Your task to perform on an android device: turn notification dots off Image 0: 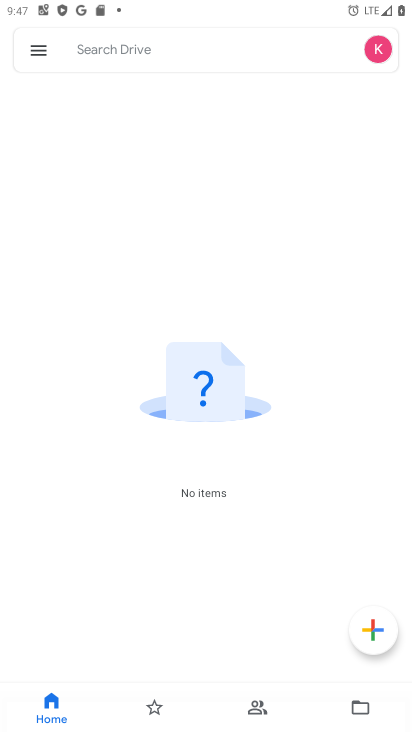
Step 0: press home button
Your task to perform on an android device: turn notification dots off Image 1: 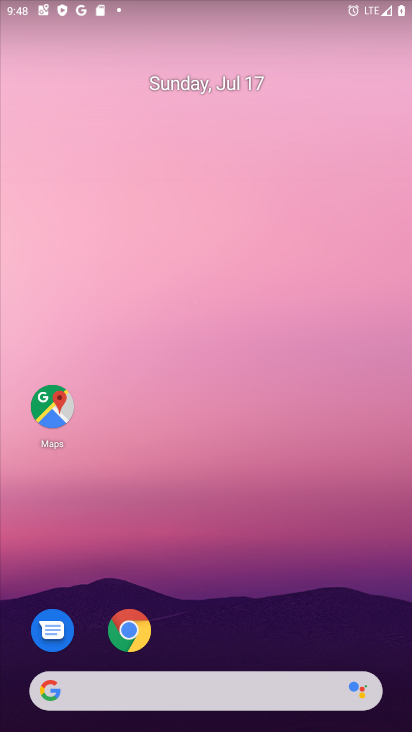
Step 1: drag from (212, 651) to (204, 115)
Your task to perform on an android device: turn notification dots off Image 2: 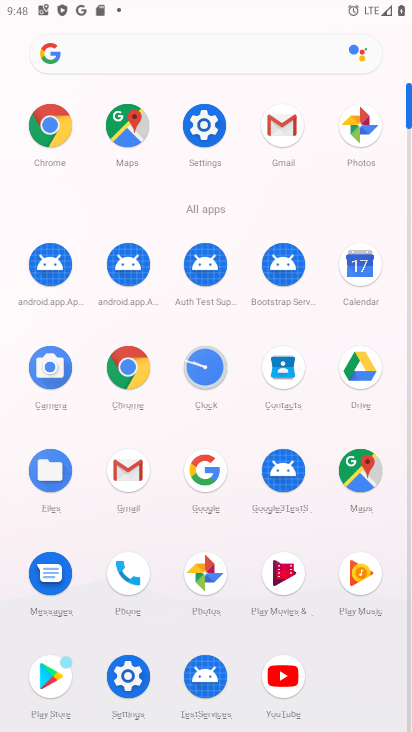
Step 2: click (198, 115)
Your task to perform on an android device: turn notification dots off Image 3: 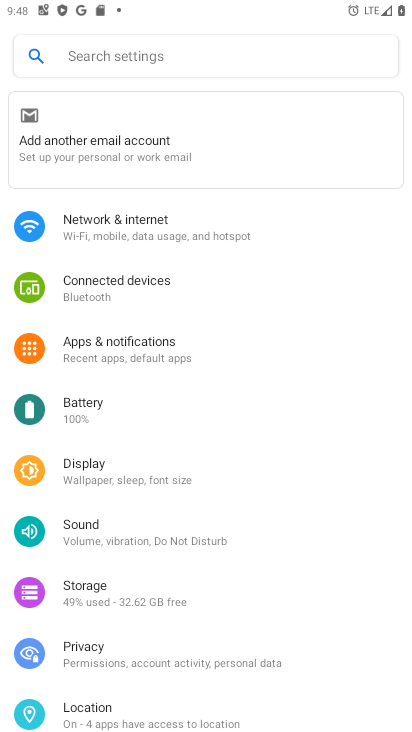
Step 3: click (149, 348)
Your task to perform on an android device: turn notification dots off Image 4: 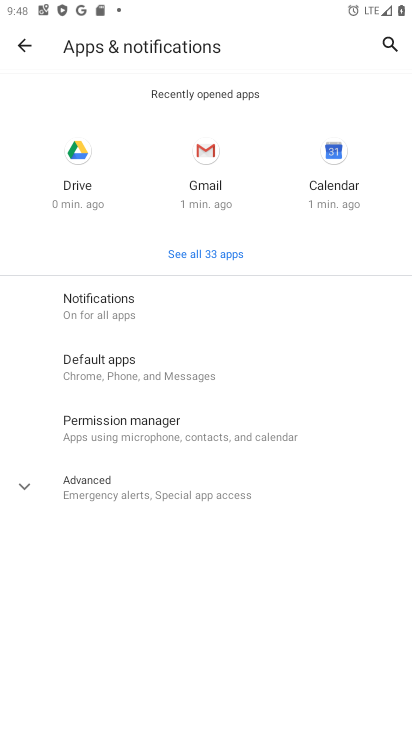
Step 4: click (133, 303)
Your task to perform on an android device: turn notification dots off Image 5: 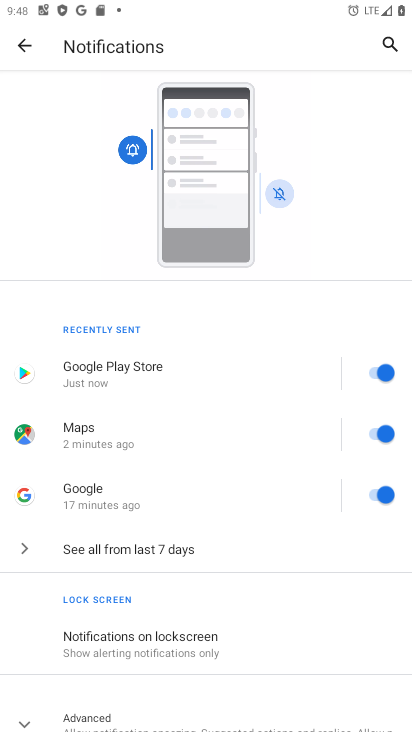
Step 5: click (117, 712)
Your task to perform on an android device: turn notification dots off Image 6: 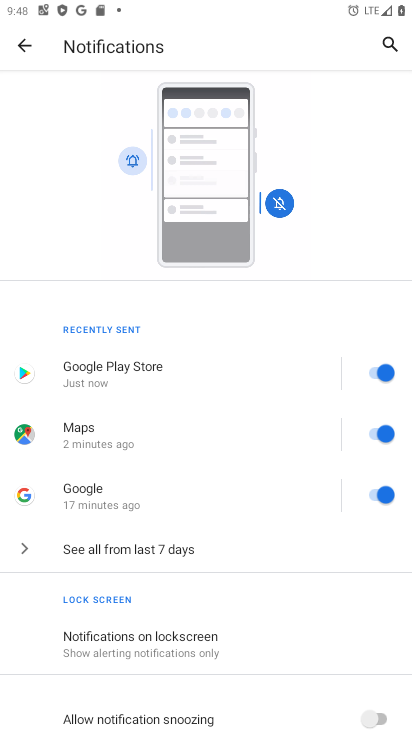
Step 6: drag from (190, 670) to (234, 220)
Your task to perform on an android device: turn notification dots off Image 7: 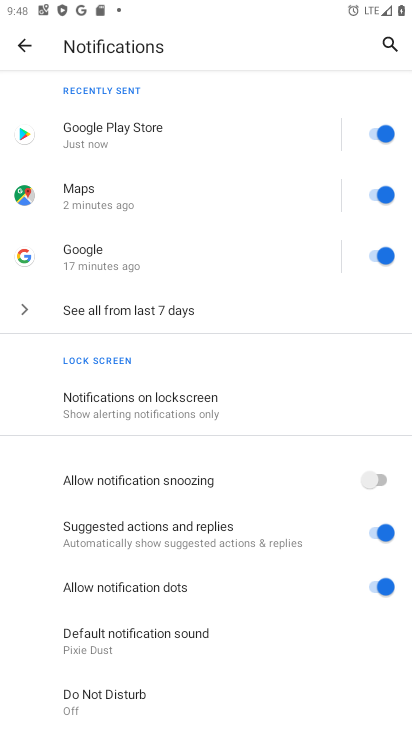
Step 7: click (380, 585)
Your task to perform on an android device: turn notification dots off Image 8: 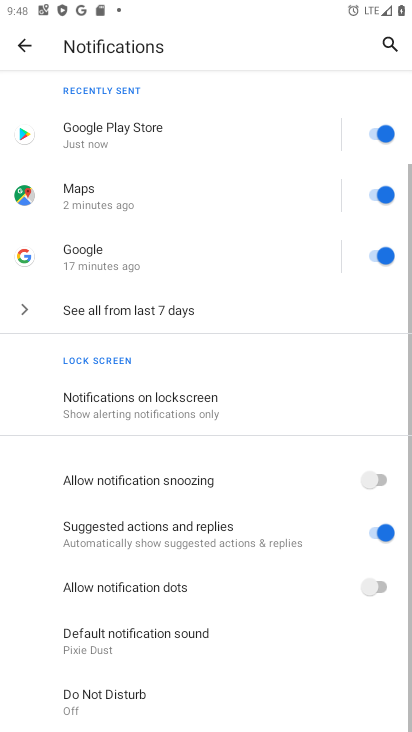
Step 8: task complete